Your task to perform on an android device: open app "Duolingo: language lessons" Image 0: 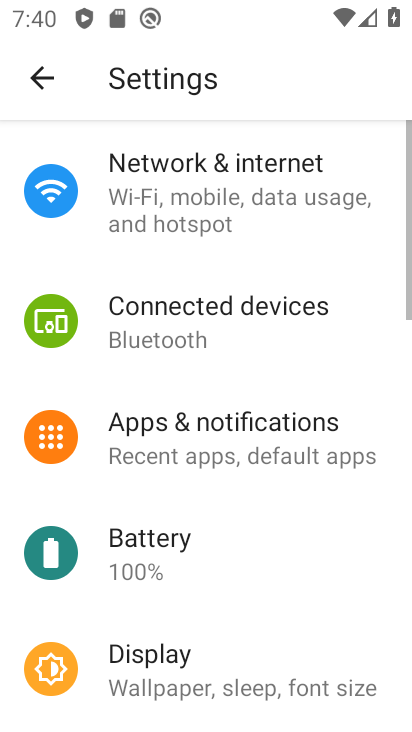
Step 0: press home button
Your task to perform on an android device: open app "Duolingo: language lessons" Image 1: 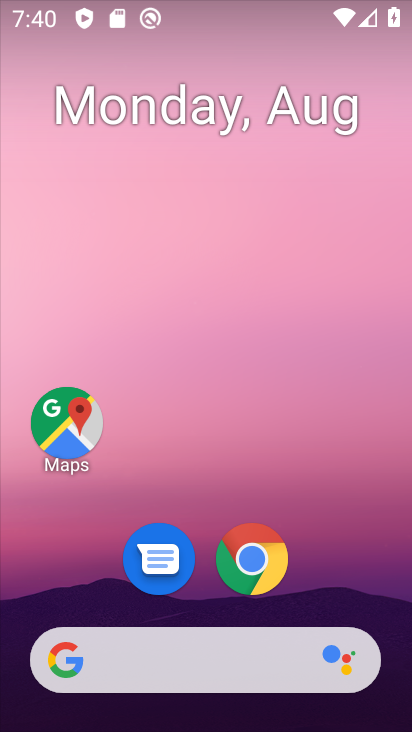
Step 1: drag from (210, 630) to (315, 25)
Your task to perform on an android device: open app "Duolingo: language lessons" Image 2: 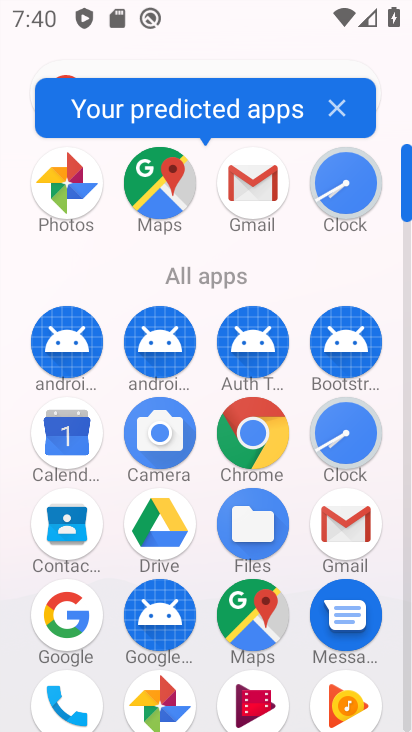
Step 2: drag from (209, 591) to (155, 20)
Your task to perform on an android device: open app "Duolingo: language lessons" Image 3: 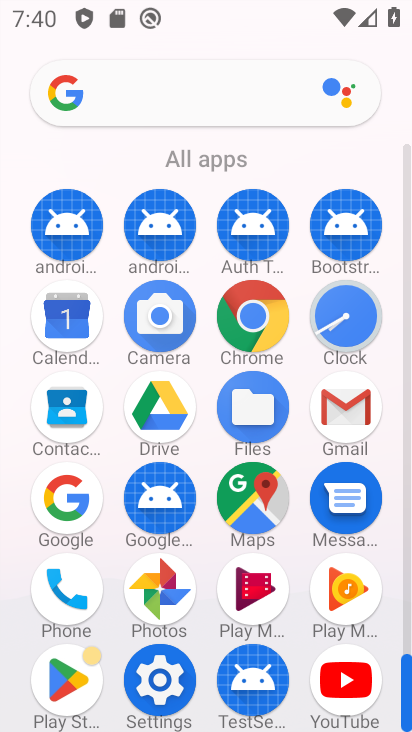
Step 3: click (73, 668)
Your task to perform on an android device: open app "Duolingo: language lessons" Image 4: 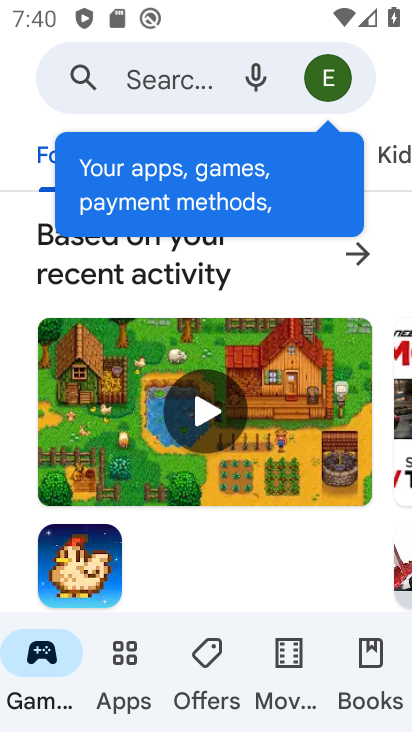
Step 4: click (196, 89)
Your task to perform on an android device: open app "Duolingo: language lessons" Image 5: 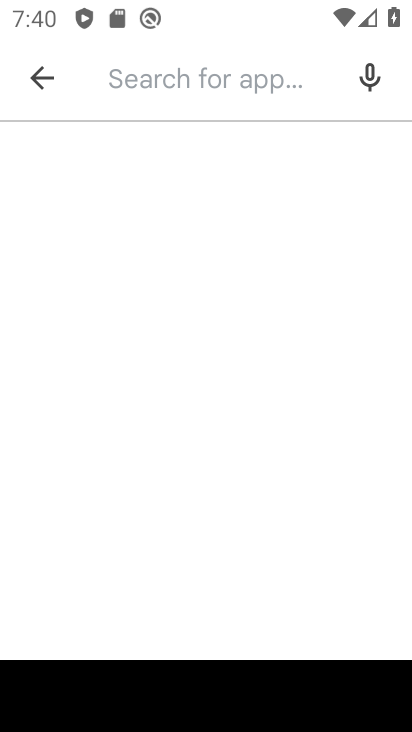
Step 5: type "Duolingo: language lessons"
Your task to perform on an android device: open app "Duolingo: language lessons" Image 6: 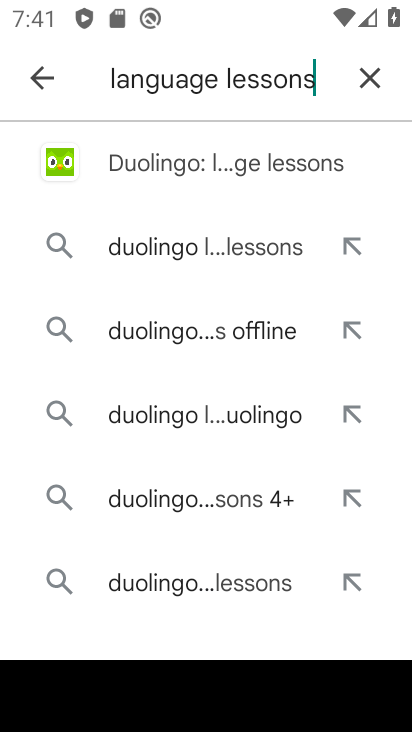
Step 6: click (213, 168)
Your task to perform on an android device: open app "Duolingo: language lessons" Image 7: 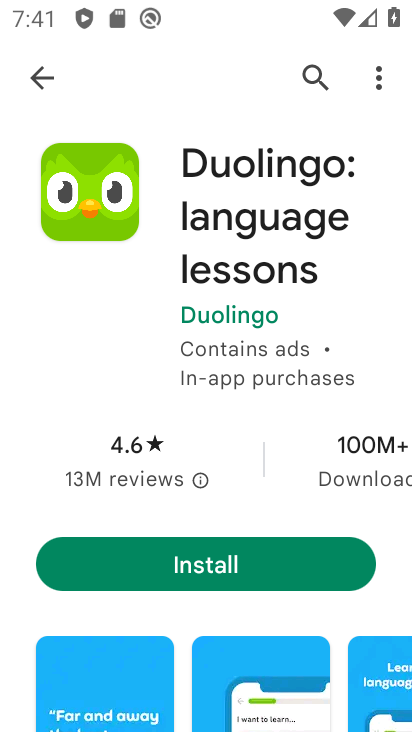
Step 7: task complete